Your task to perform on an android device: When is my next appointment? Image 0: 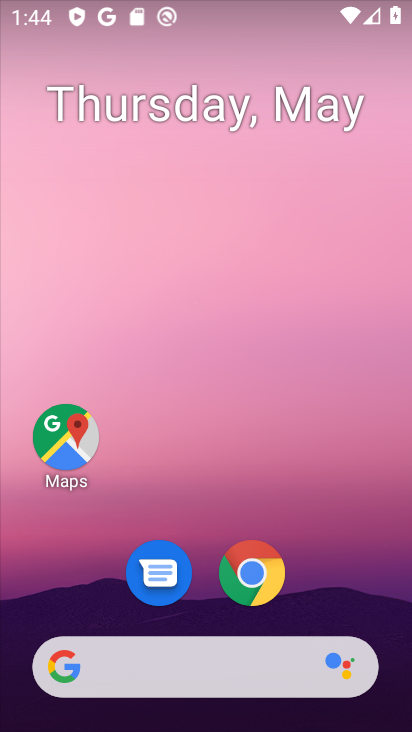
Step 0: drag from (337, 395) to (337, 282)
Your task to perform on an android device: When is my next appointment? Image 1: 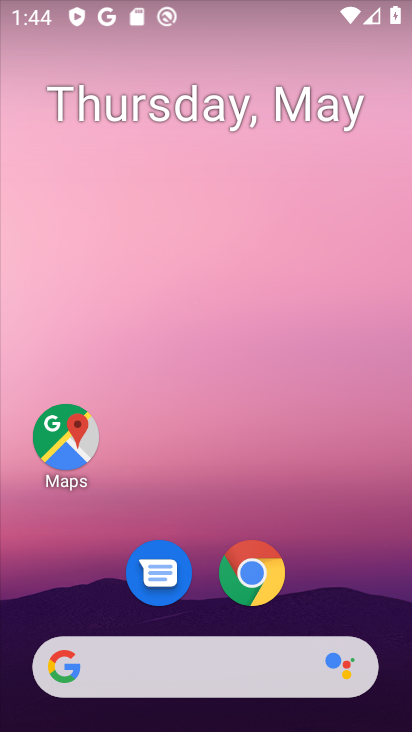
Step 1: drag from (299, 594) to (319, 235)
Your task to perform on an android device: When is my next appointment? Image 2: 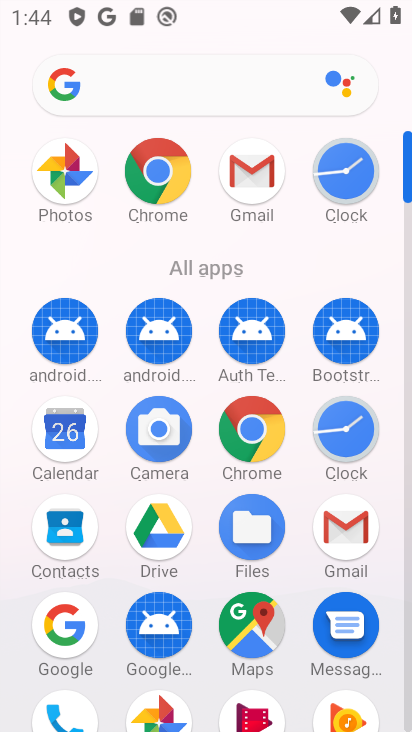
Step 2: click (70, 420)
Your task to perform on an android device: When is my next appointment? Image 3: 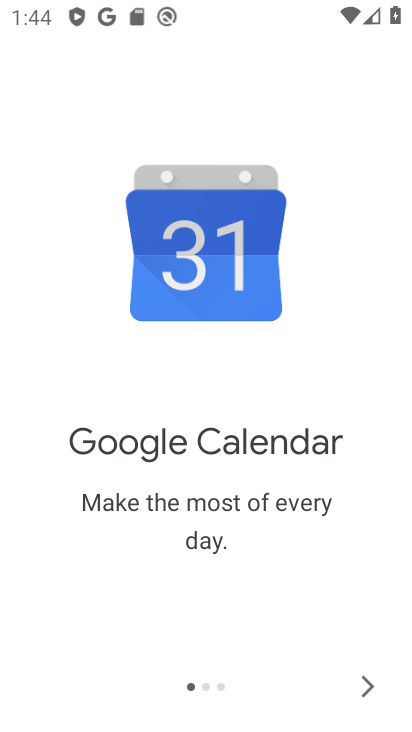
Step 3: click (350, 691)
Your task to perform on an android device: When is my next appointment? Image 4: 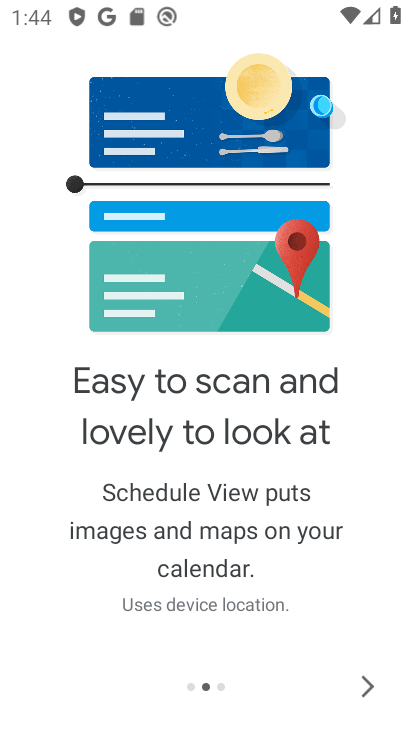
Step 4: click (351, 690)
Your task to perform on an android device: When is my next appointment? Image 5: 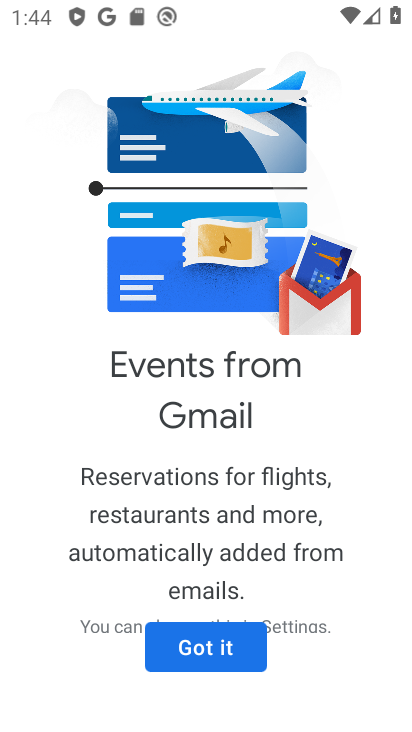
Step 5: click (351, 690)
Your task to perform on an android device: When is my next appointment? Image 6: 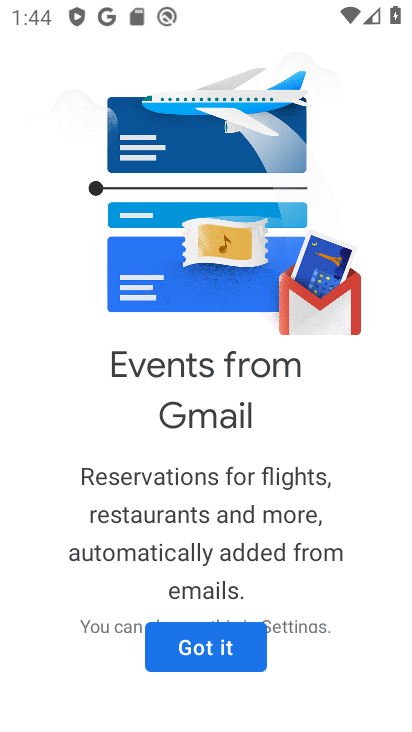
Step 6: click (224, 633)
Your task to perform on an android device: When is my next appointment? Image 7: 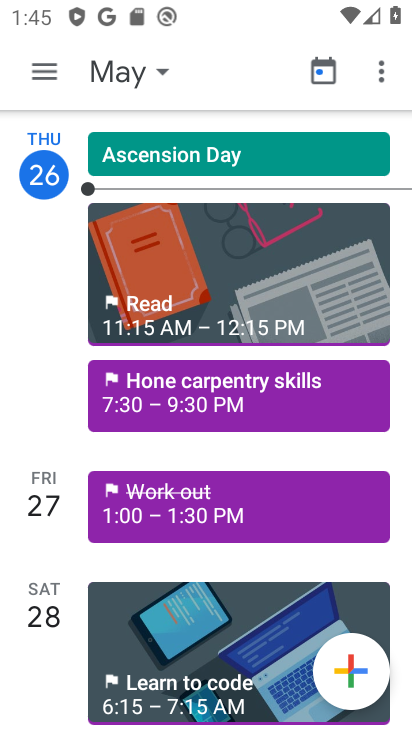
Step 7: task complete